Your task to perform on an android device: Go to accessibility settings Image 0: 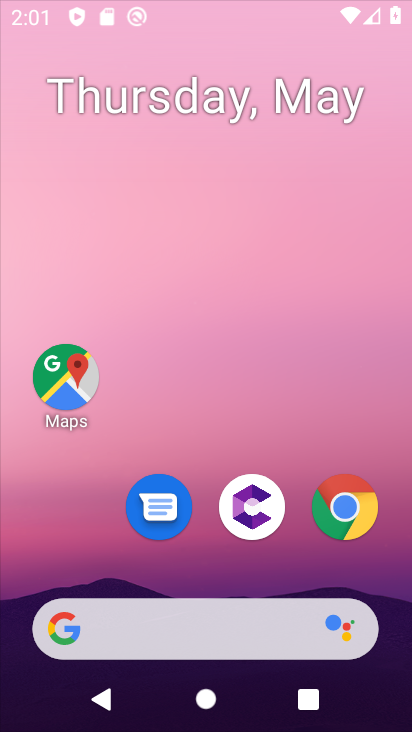
Step 0: press home button
Your task to perform on an android device: Go to accessibility settings Image 1: 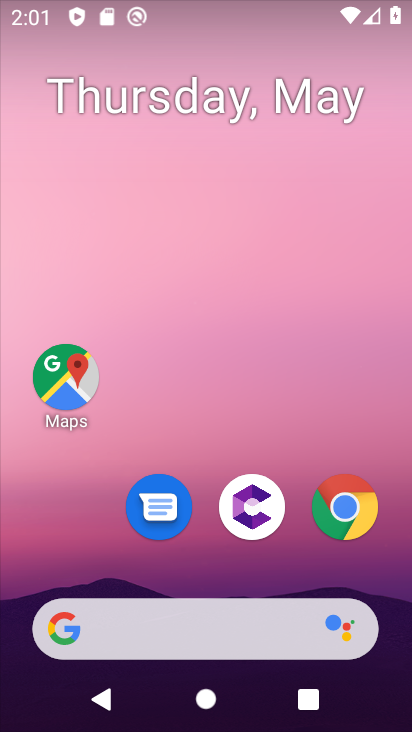
Step 1: drag from (290, 564) to (279, 153)
Your task to perform on an android device: Go to accessibility settings Image 2: 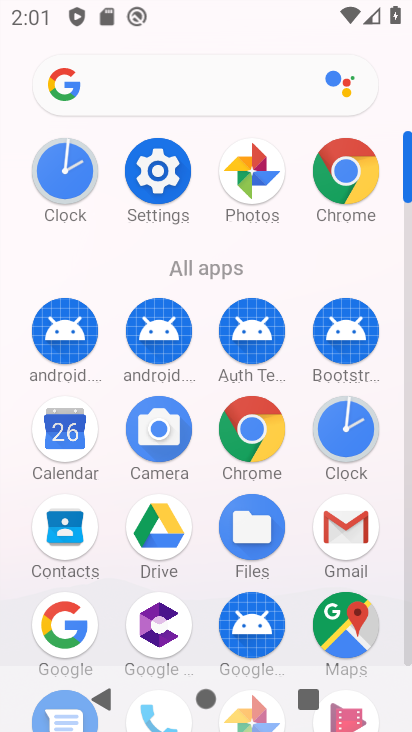
Step 2: click (161, 177)
Your task to perform on an android device: Go to accessibility settings Image 3: 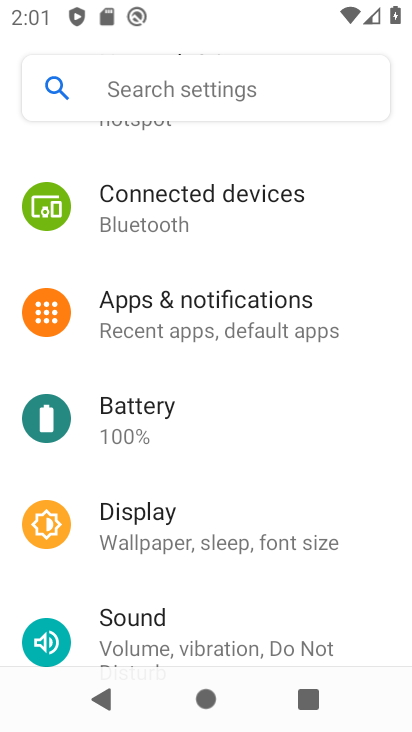
Step 3: drag from (349, 454) to (354, 56)
Your task to perform on an android device: Go to accessibility settings Image 4: 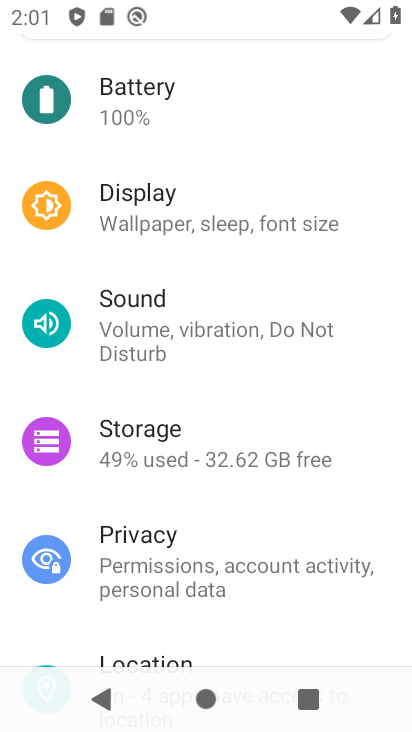
Step 4: drag from (287, 624) to (324, 34)
Your task to perform on an android device: Go to accessibility settings Image 5: 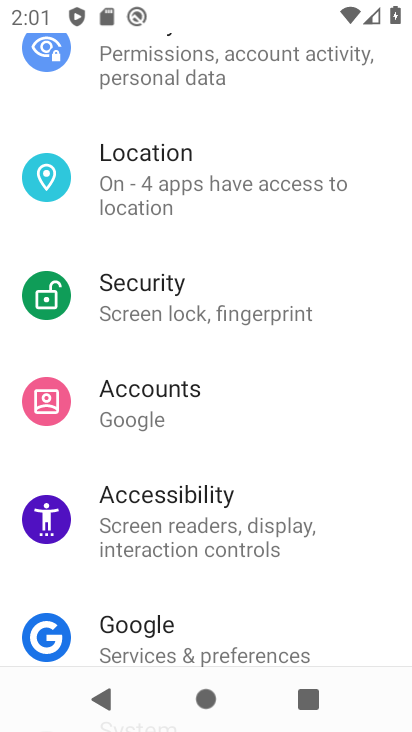
Step 5: click (179, 496)
Your task to perform on an android device: Go to accessibility settings Image 6: 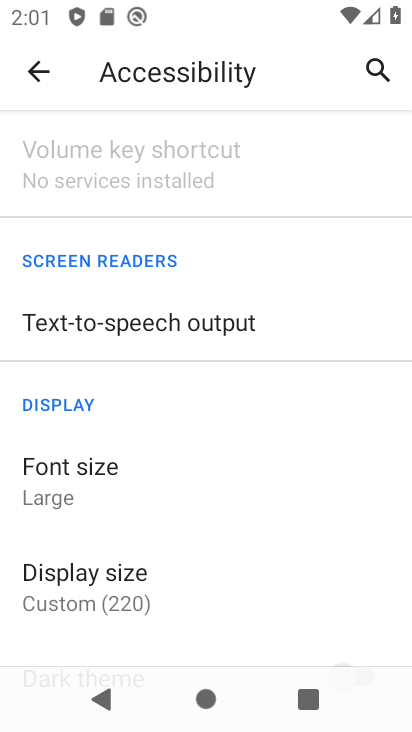
Step 6: task complete